Your task to perform on an android device: Open the map Image 0: 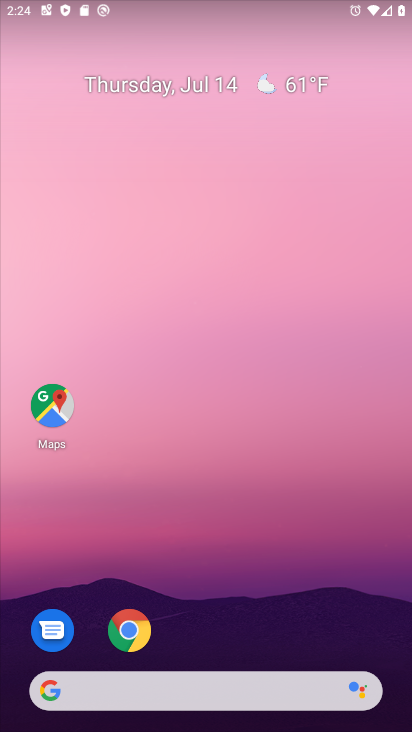
Step 0: click (49, 409)
Your task to perform on an android device: Open the map Image 1: 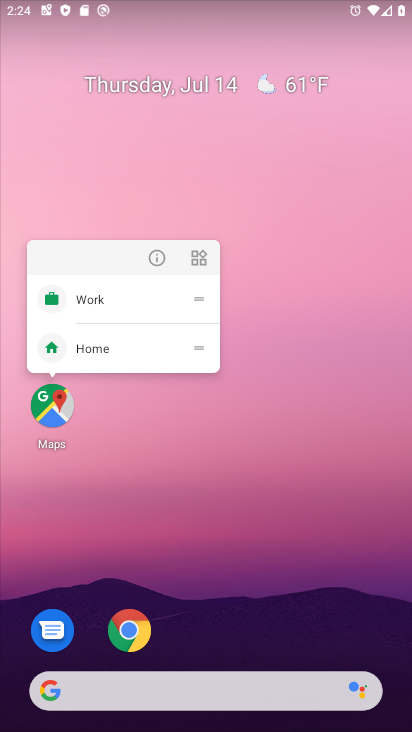
Step 1: click (50, 408)
Your task to perform on an android device: Open the map Image 2: 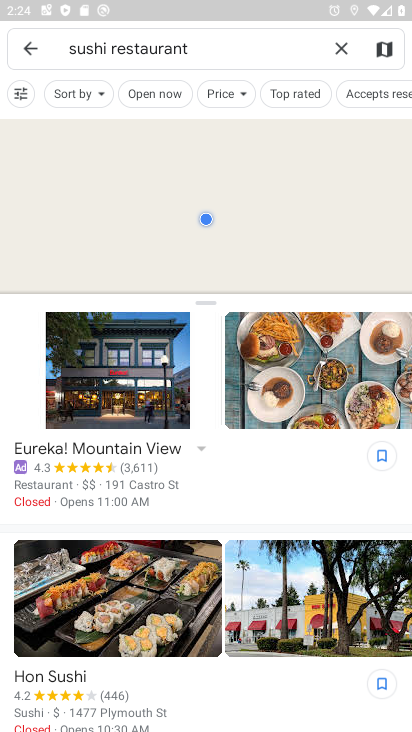
Step 2: click (28, 46)
Your task to perform on an android device: Open the map Image 3: 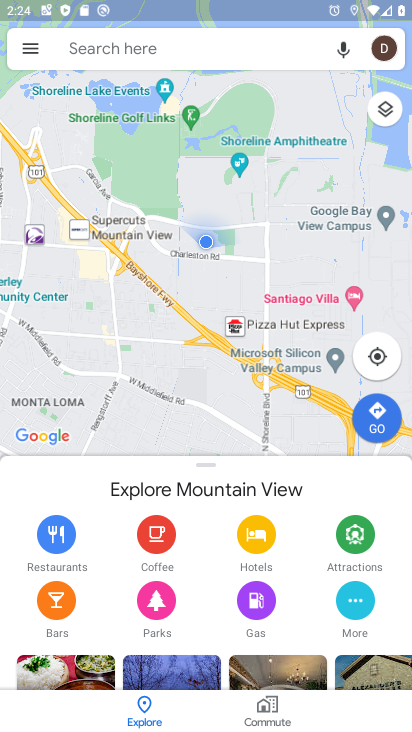
Step 3: task complete